Your task to perform on an android device: Do I have any events this weekend? Image 0: 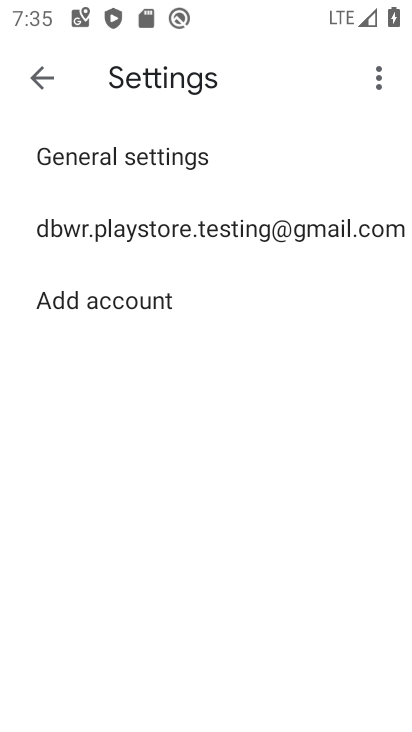
Step 0: press home button
Your task to perform on an android device: Do I have any events this weekend? Image 1: 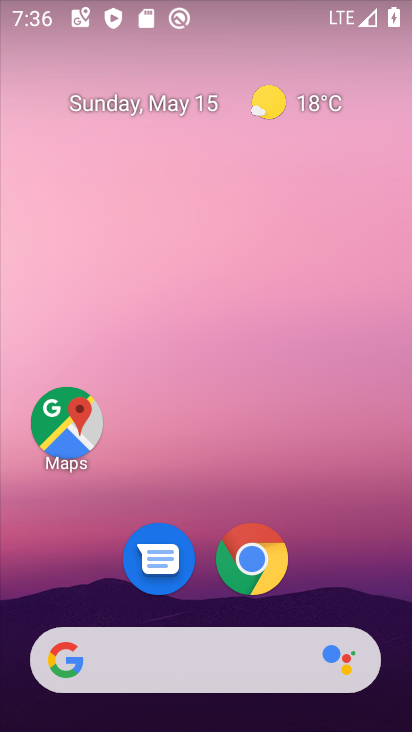
Step 1: drag from (195, 441) to (164, 17)
Your task to perform on an android device: Do I have any events this weekend? Image 2: 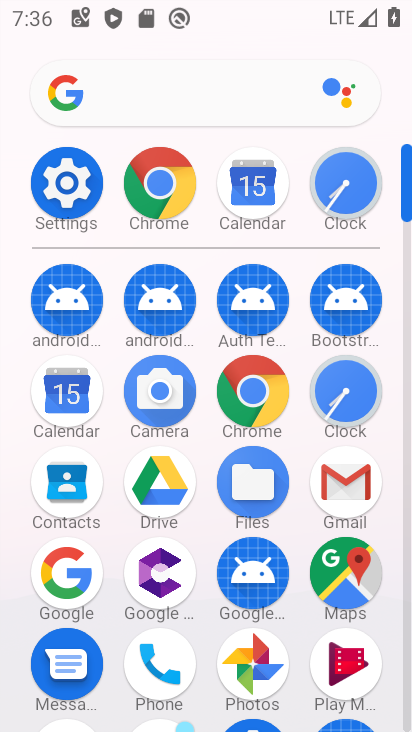
Step 2: click (70, 178)
Your task to perform on an android device: Do I have any events this weekend? Image 3: 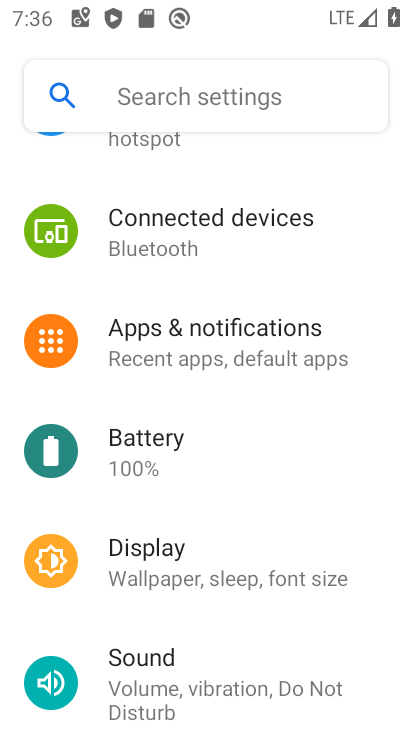
Step 3: press home button
Your task to perform on an android device: Do I have any events this weekend? Image 4: 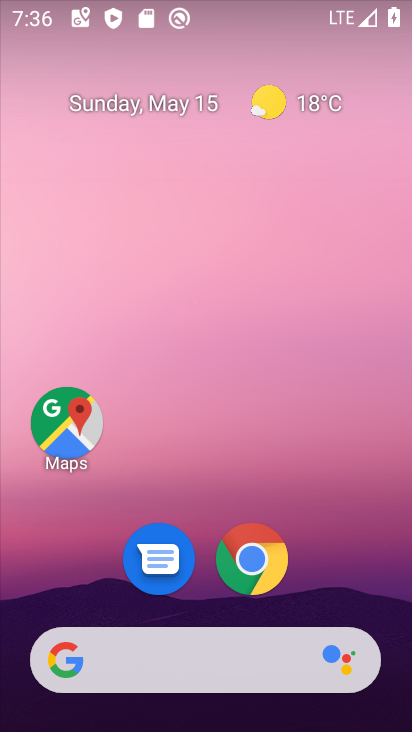
Step 4: drag from (349, 531) to (176, 12)
Your task to perform on an android device: Do I have any events this weekend? Image 5: 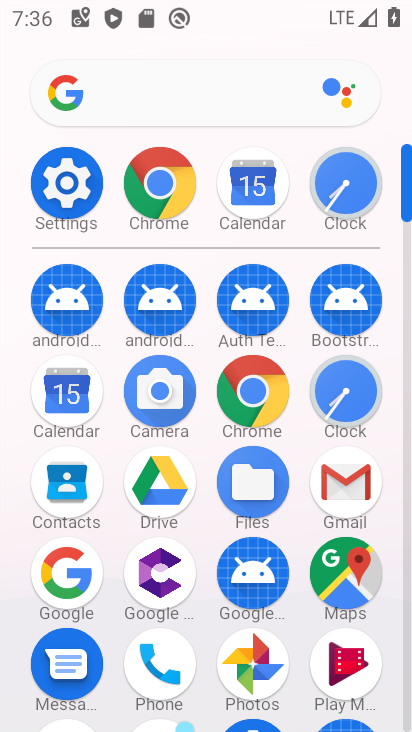
Step 5: click (72, 402)
Your task to perform on an android device: Do I have any events this weekend? Image 6: 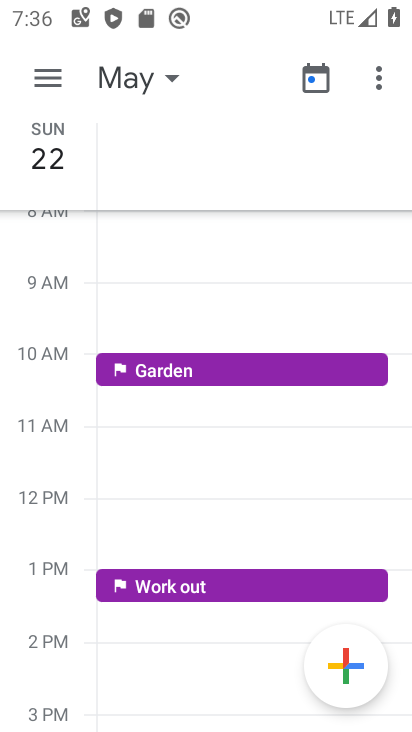
Step 6: click (53, 78)
Your task to perform on an android device: Do I have any events this weekend? Image 7: 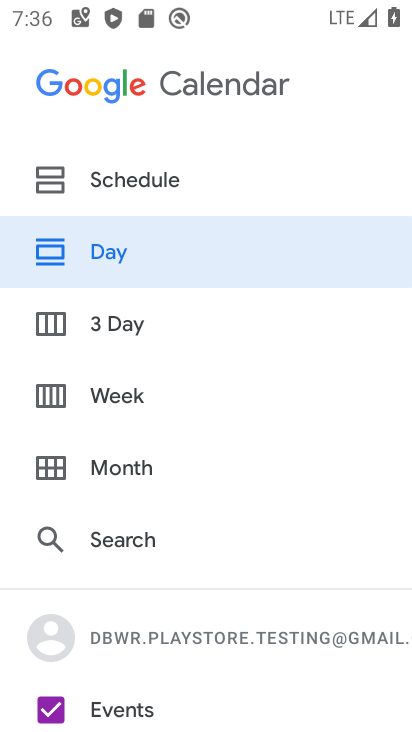
Step 7: click (121, 401)
Your task to perform on an android device: Do I have any events this weekend? Image 8: 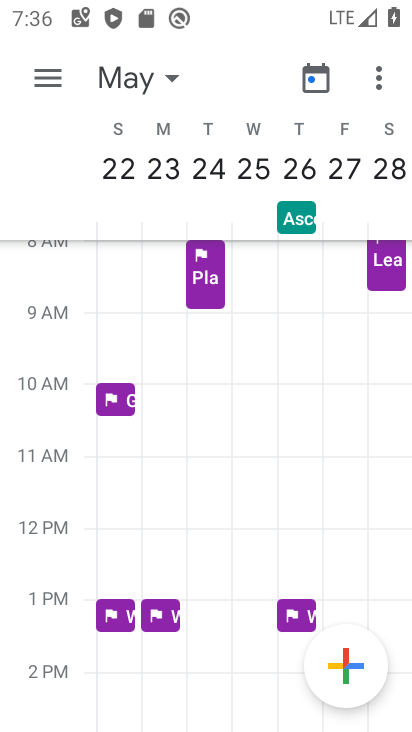
Step 8: click (173, 77)
Your task to perform on an android device: Do I have any events this weekend? Image 9: 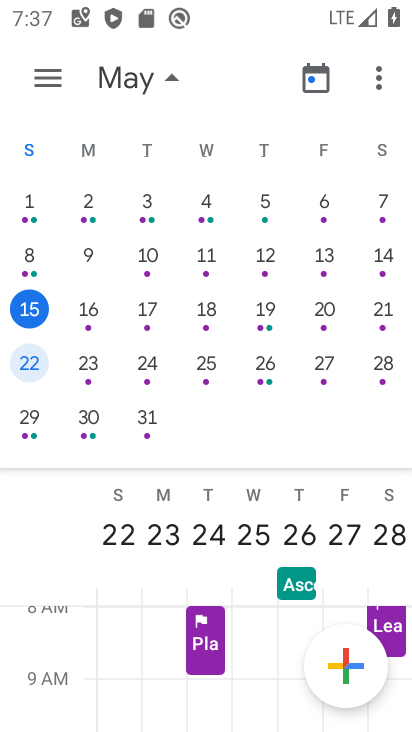
Step 9: click (149, 247)
Your task to perform on an android device: Do I have any events this weekend? Image 10: 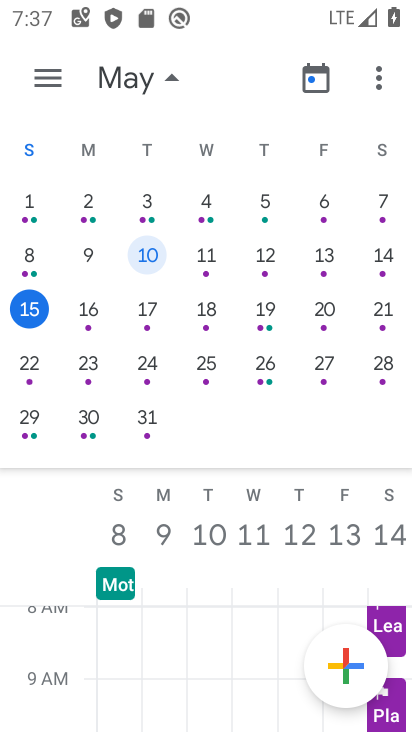
Step 10: drag from (250, 639) to (184, 432)
Your task to perform on an android device: Do I have any events this weekend? Image 11: 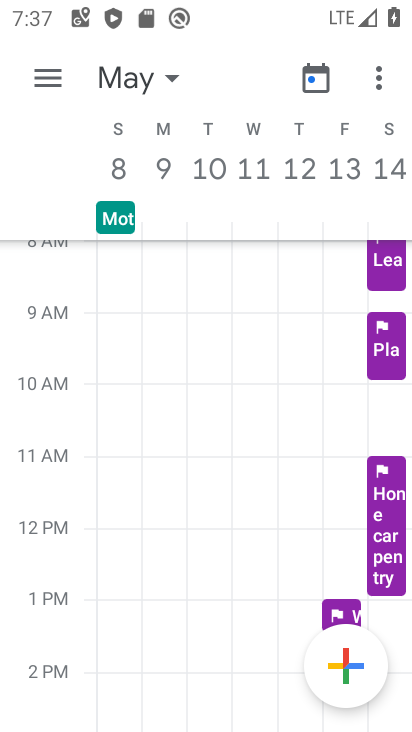
Step 11: drag from (209, 376) to (241, 729)
Your task to perform on an android device: Do I have any events this weekend? Image 12: 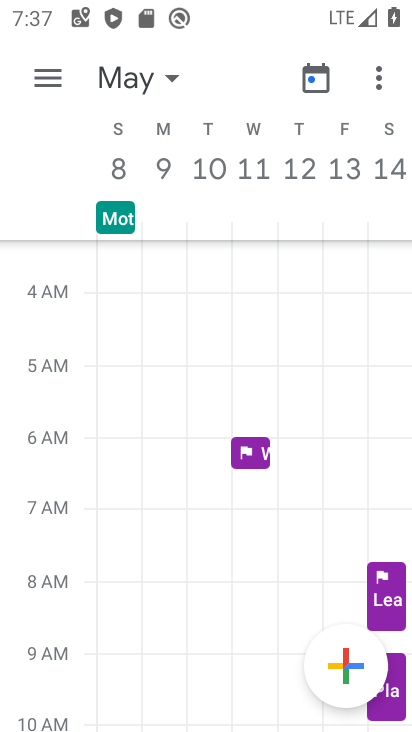
Step 12: click (172, 81)
Your task to perform on an android device: Do I have any events this weekend? Image 13: 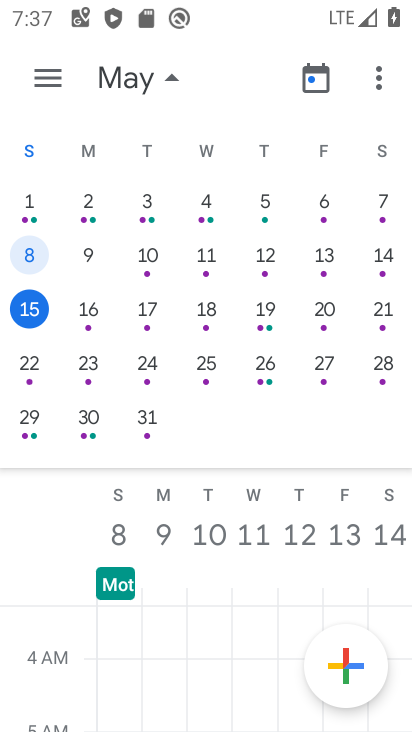
Step 13: click (92, 355)
Your task to perform on an android device: Do I have any events this weekend? Image 14: 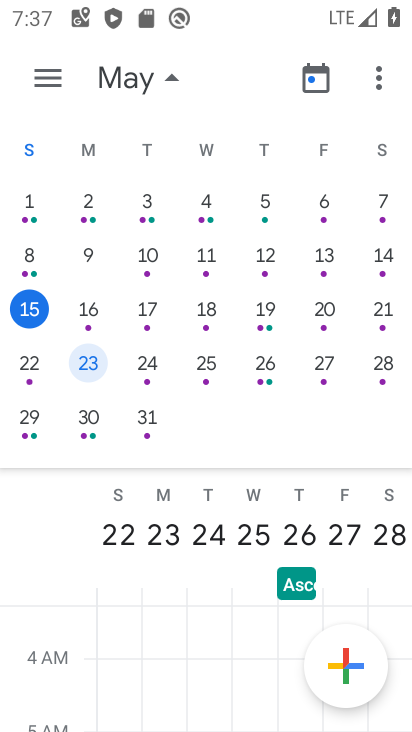
Step 14: click (264, 305)
Your task to perform on an android device: Do I have any events this weekend? Image 15: 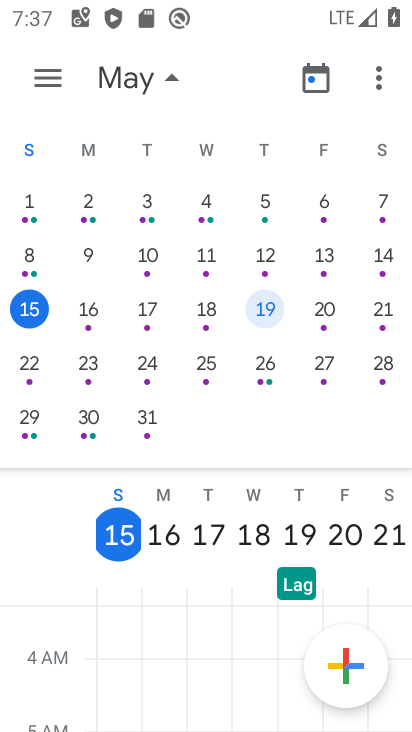
Step 15: task complete